Your task to perform on an android device: see tabs open on other devices in the chrome app Image 0: 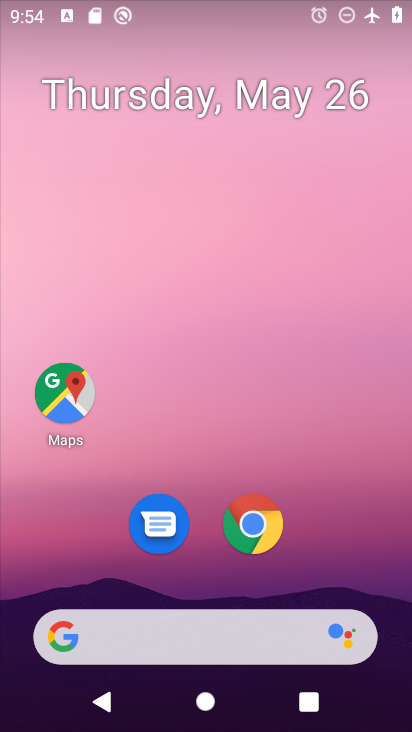
Step 0: click (251, 521)
Your task to perform on an android device: see tabs open on other devices in the chrome app Image 1: 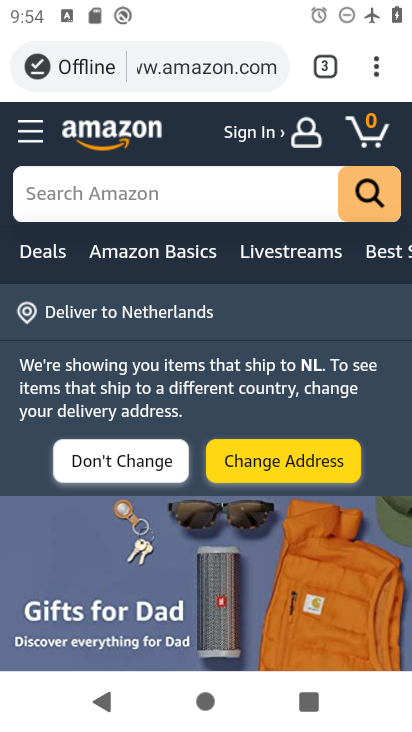
Step 1: click (378, 68)
Your task to perform on an android device: see tabs open on other devices in the chrome app Image 2: 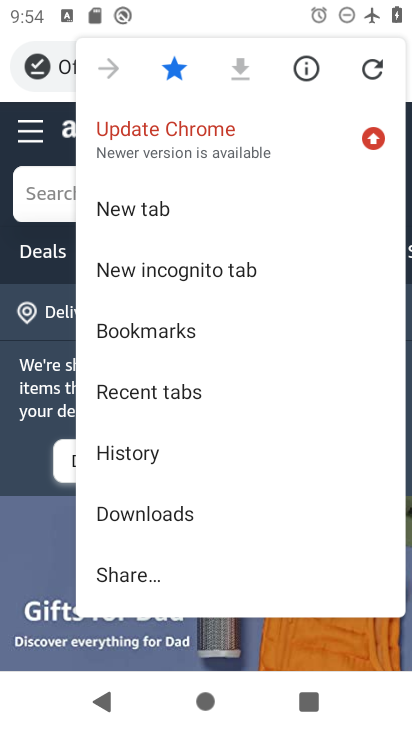
Step 2: click (167, 397)
Your task to perform on an android device: see tabs open on other devices in the chrome app Image 3: 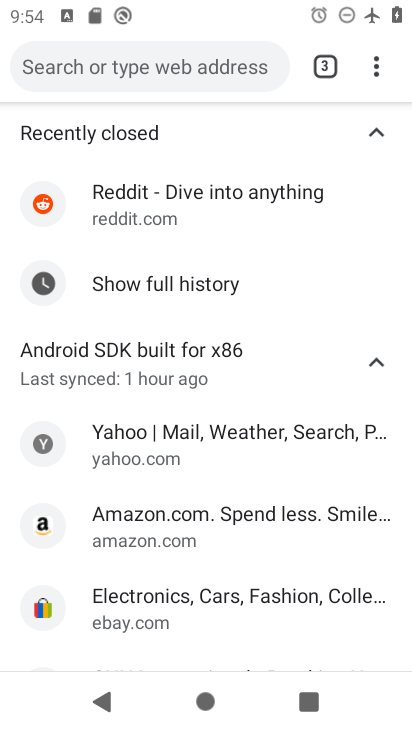
Step 3: task complete